Your task to perform on an android device: delete the emails in spam in the gmail app Image 0: 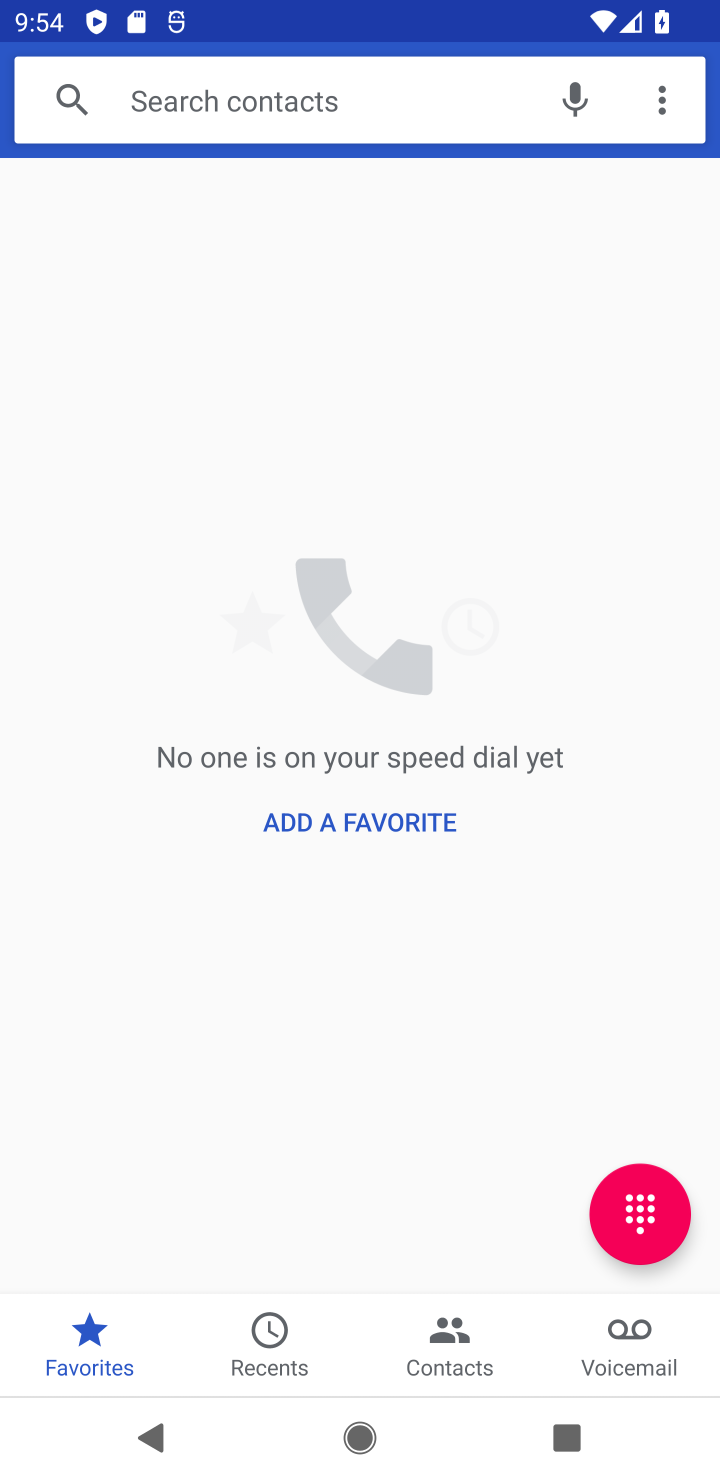
Step 0: press home button
Your task to perform on an android device: delete the emails in spam in the gmail app Image 1: 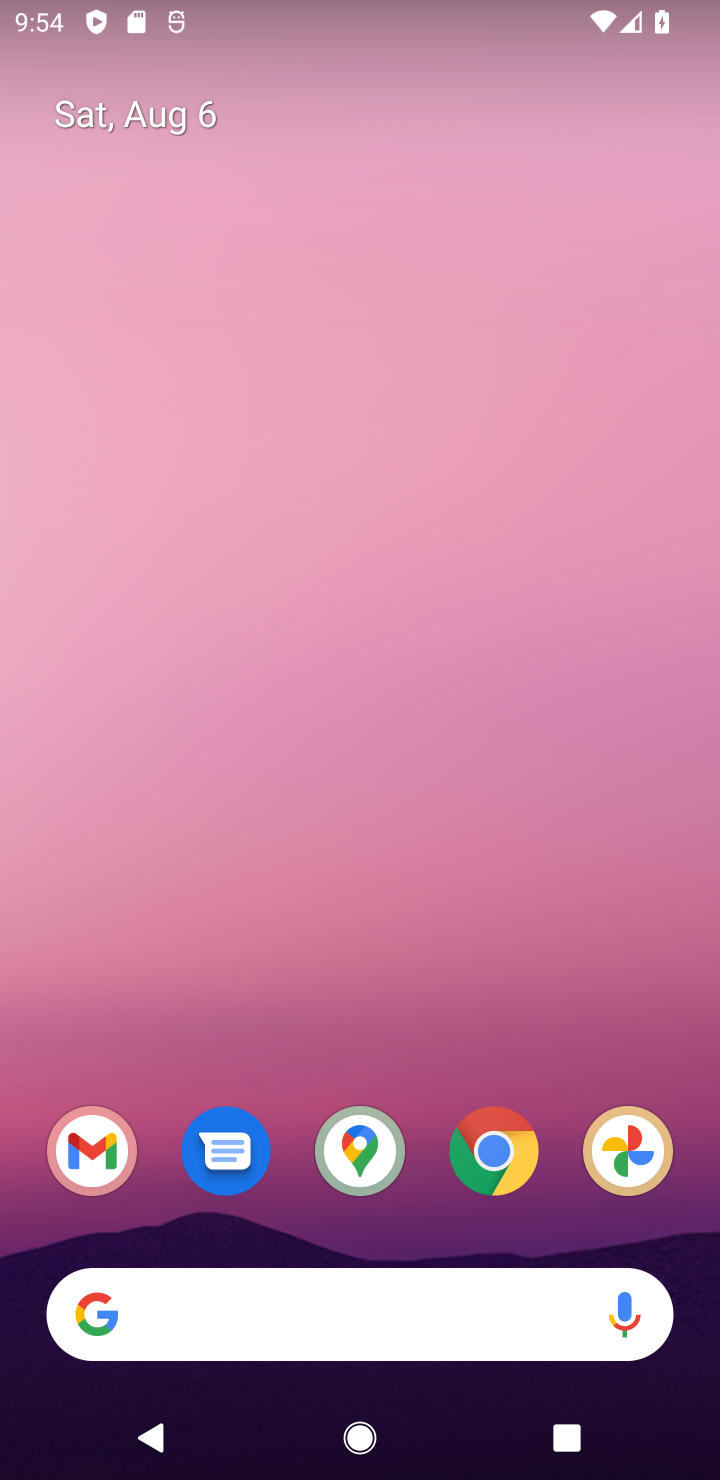
Step 1: drag from (411, 756) to (406, 548)
Your task to perform on an android device: delete the emails in spam in the gmail app Image 2: 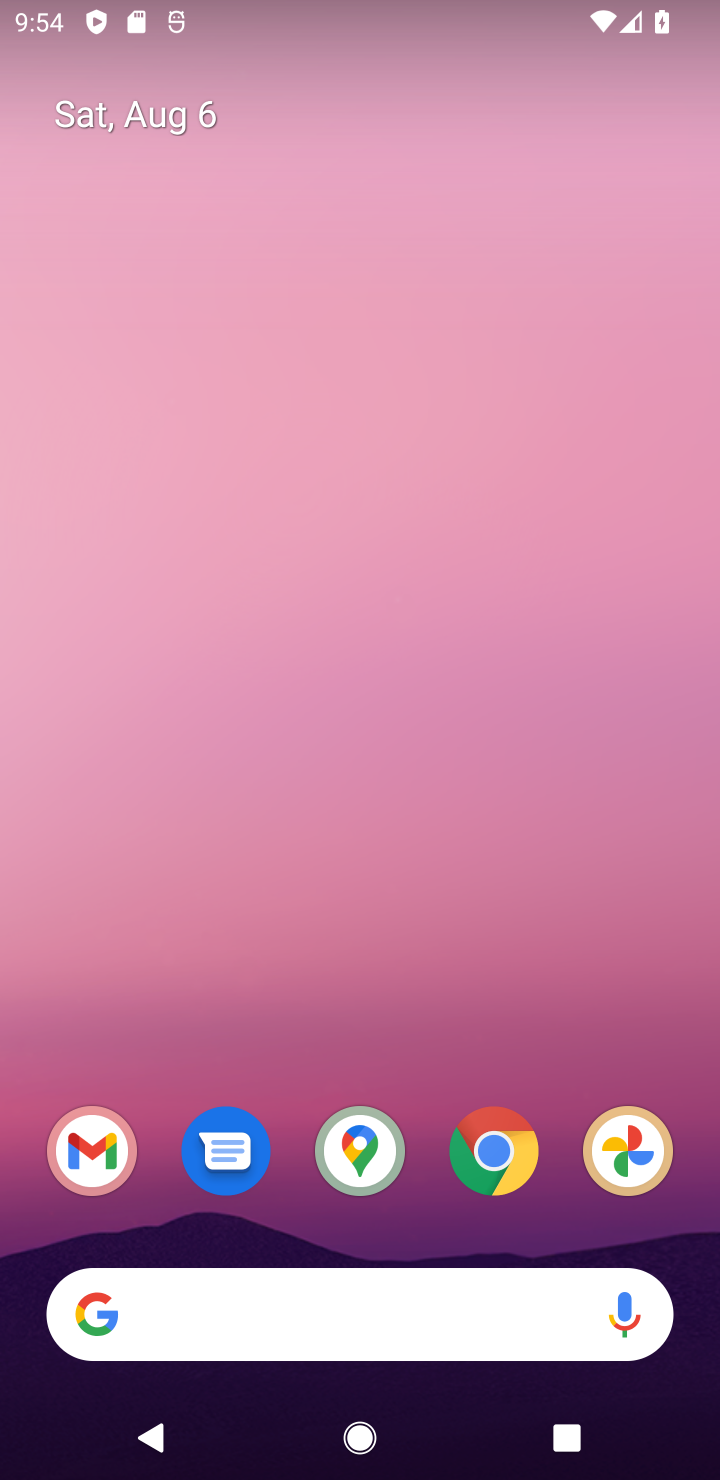
Step 2: drag from (265, 795) to (276, 204)
Your task to perform on an android device: delete the emails in spam in the gmail app Image 3: 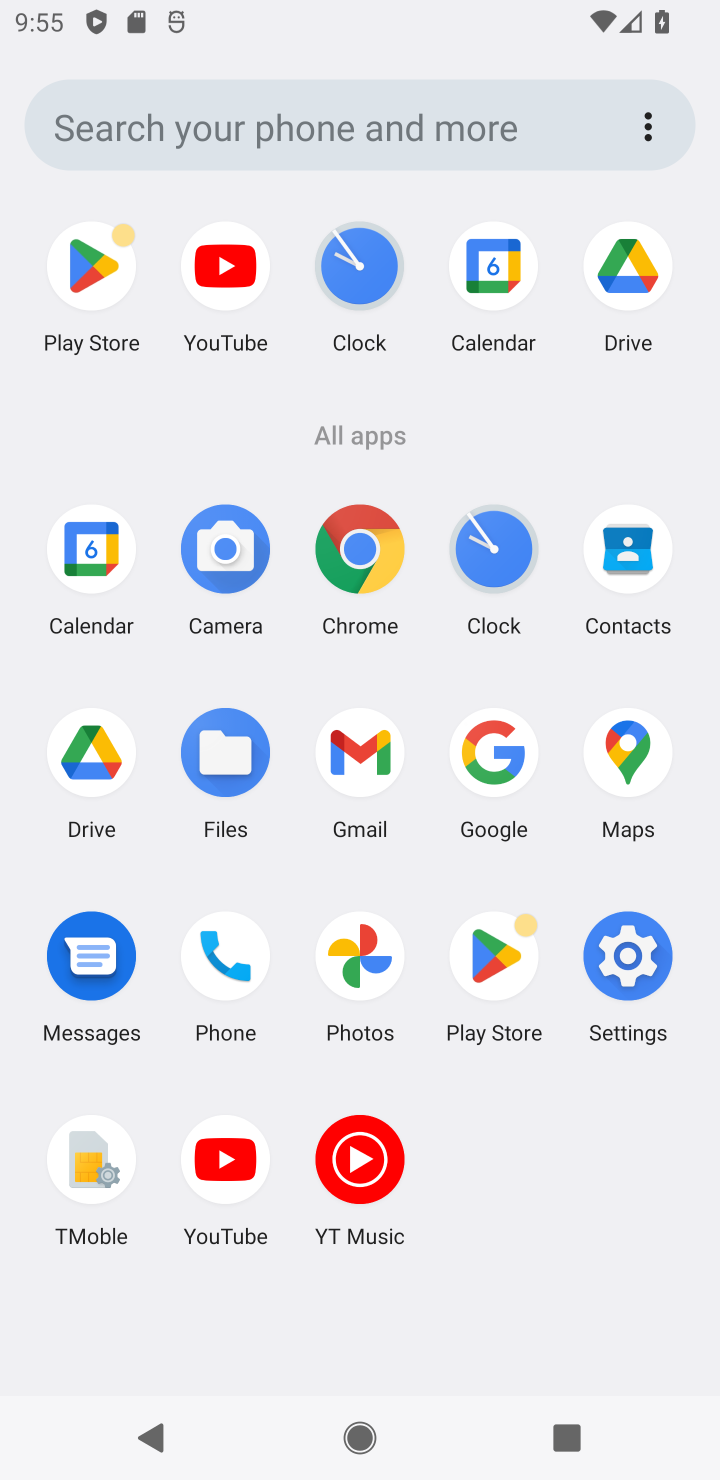
Step 3: click (333, 729)
Your task to perform on an android device: delete the emails in spam in the gmail app Image 4: 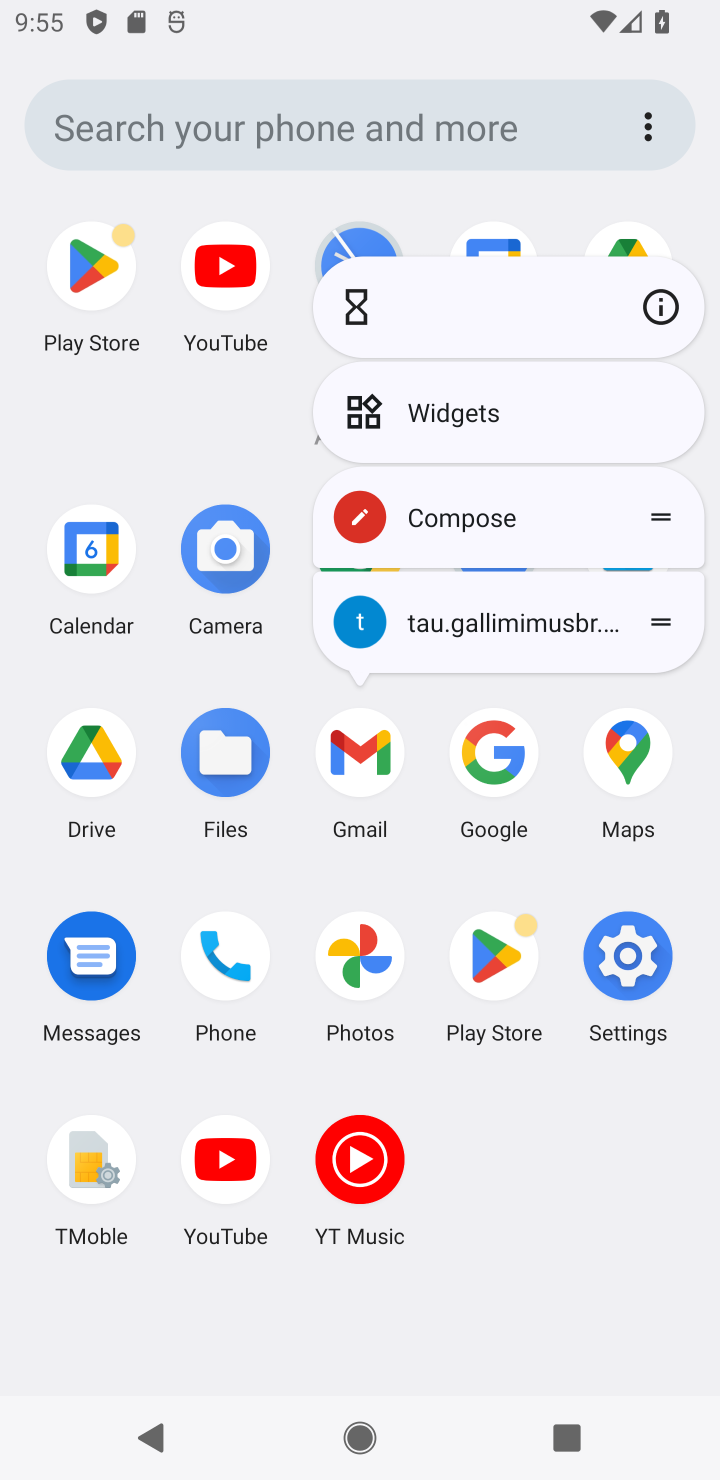
Step 4: click (367, 760)
Your task to perform on an android device: delete the emails in spam in the gmail app Image 5: 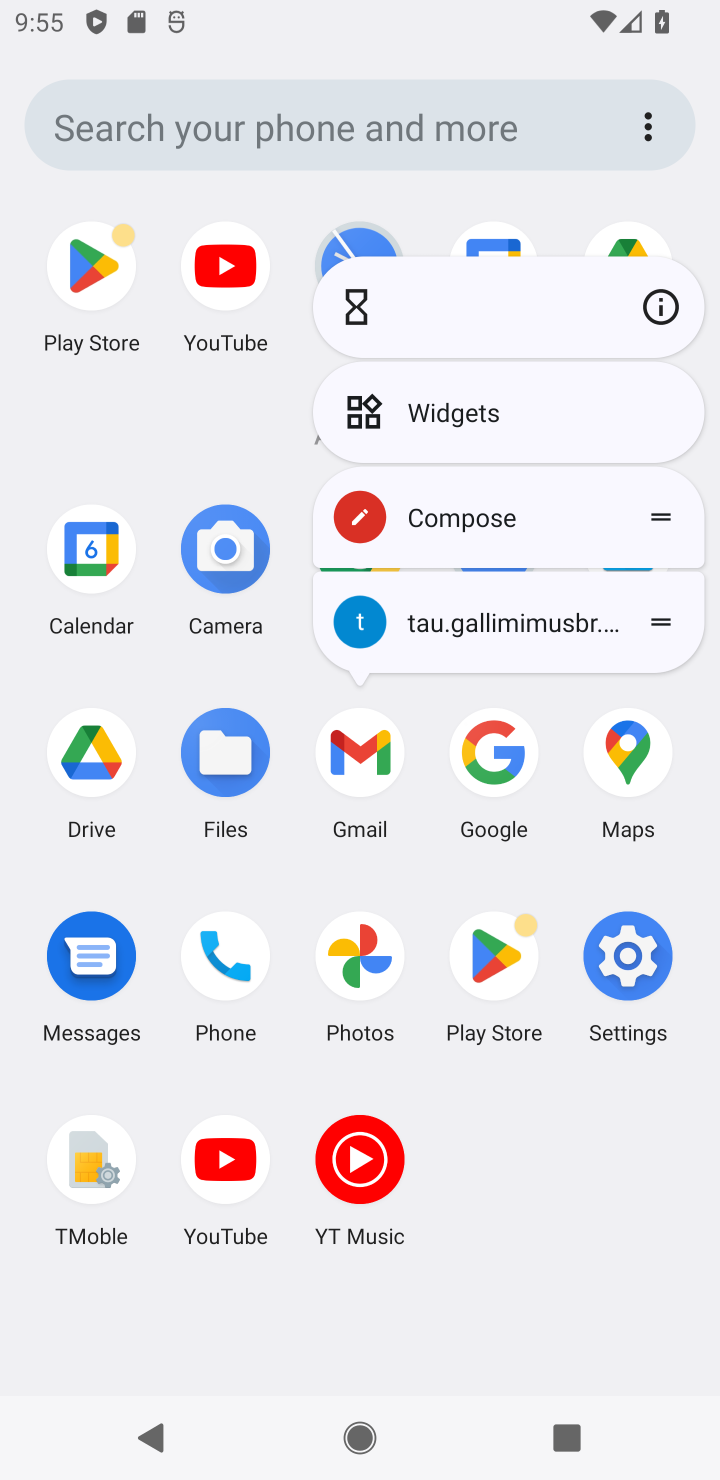
Step 5: click (367, 760)
Your task to perform on an android device: delete the emails in spam in the gmail app Image 6: 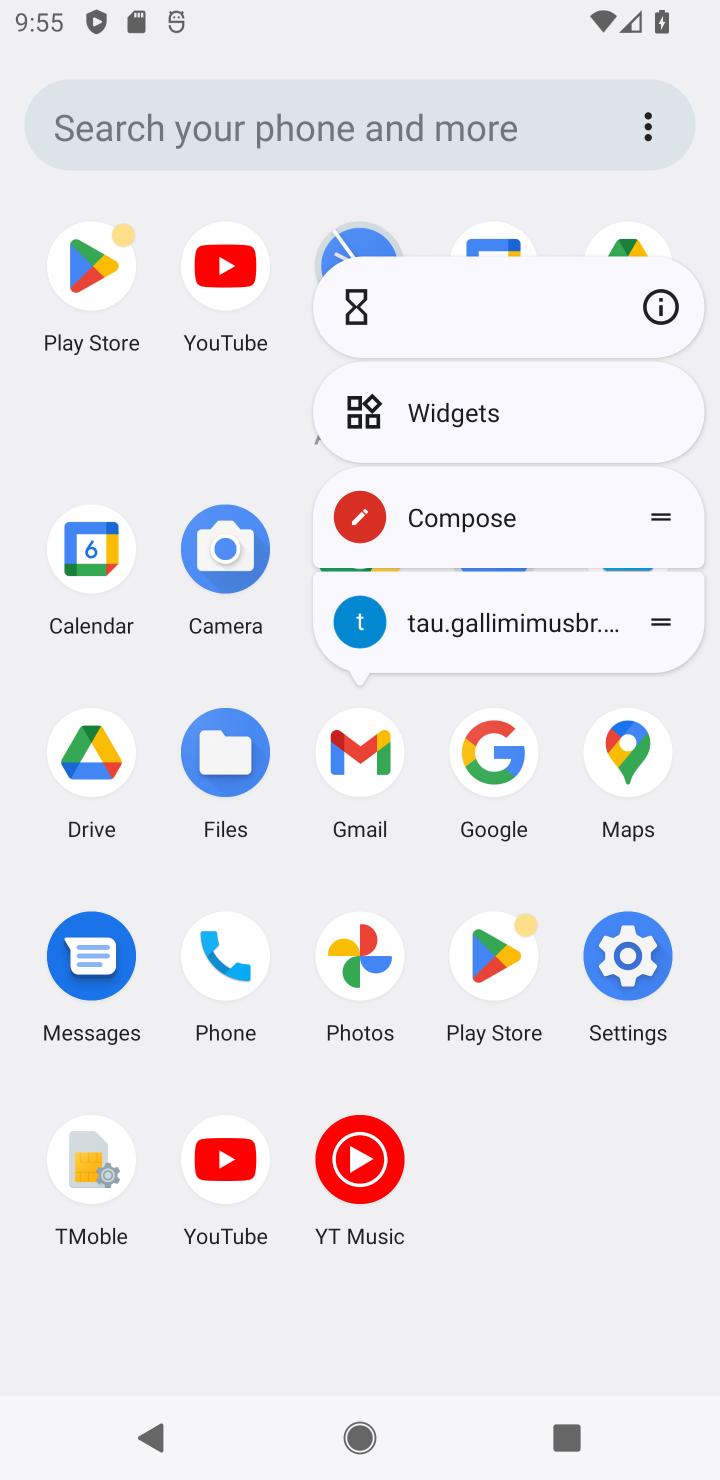
Step 6: click (389, 752)
Your task to perform on an android device: delete the emails in spam in the gmail app Image 7: 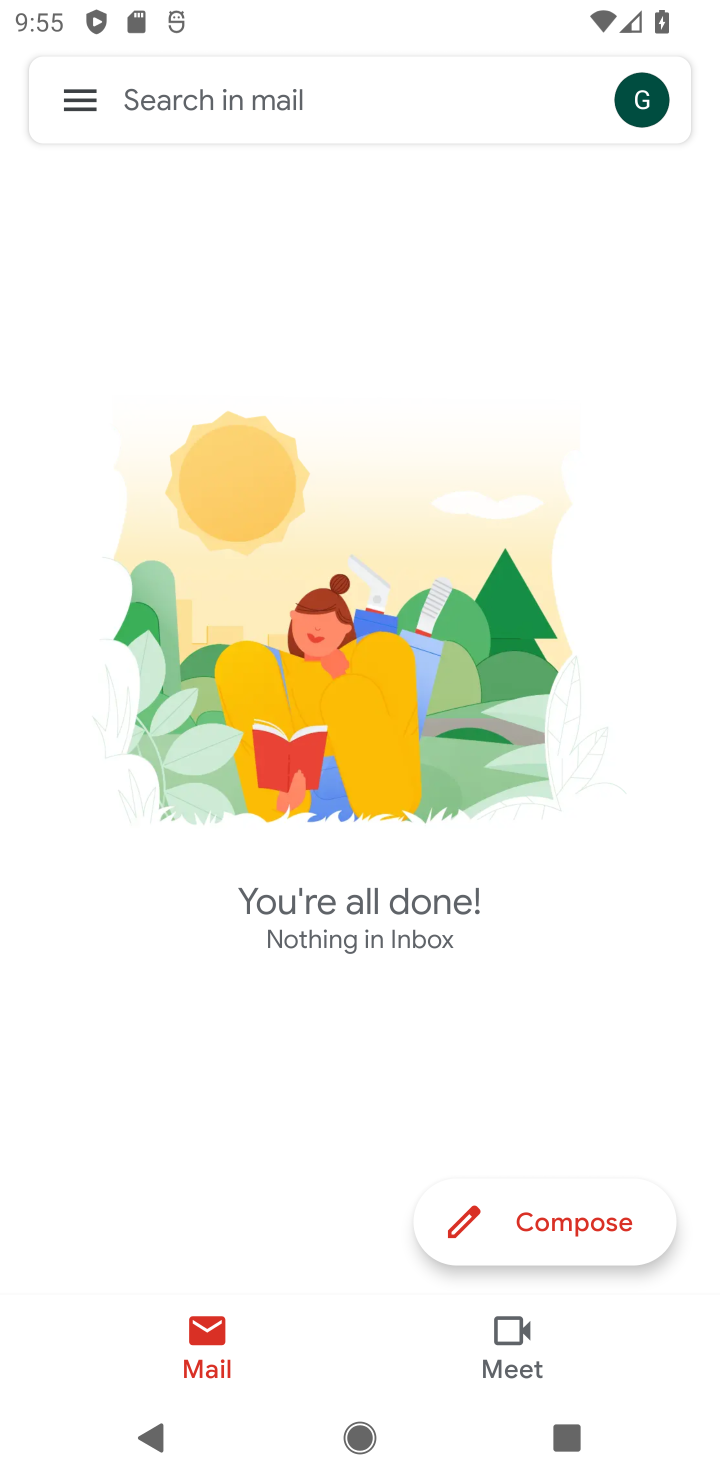
Step 7: task complete